Your task to perform on an android device: set an alarm Image 0: 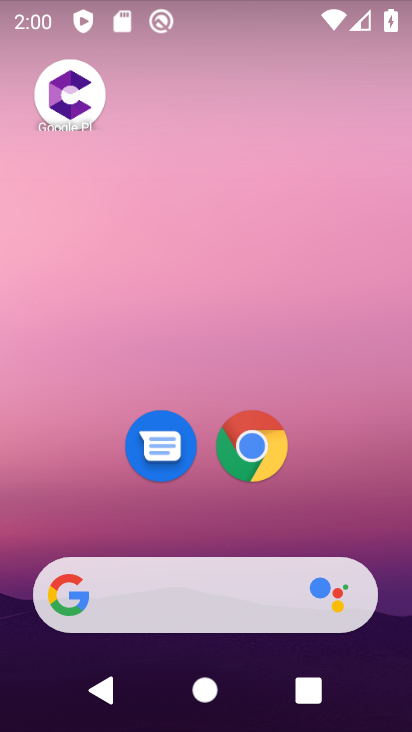
Step 0: drag from (378, 509) to (320, 1)
Your task to perform on an android device: set an alarm Image 1: 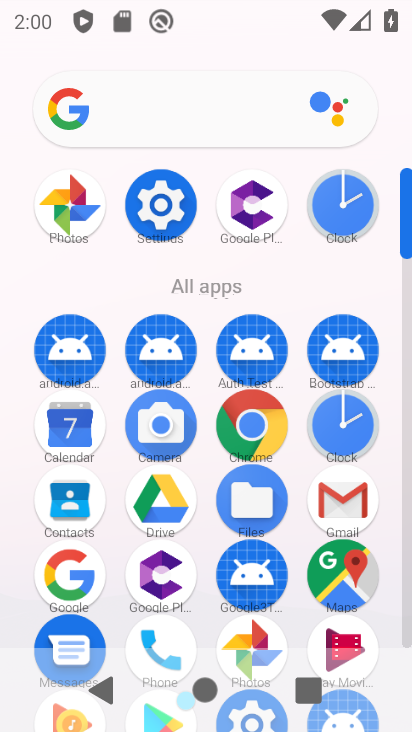
Step 1: click (342, 421)
Your task to perform on an android device: set an alarm Image 2: 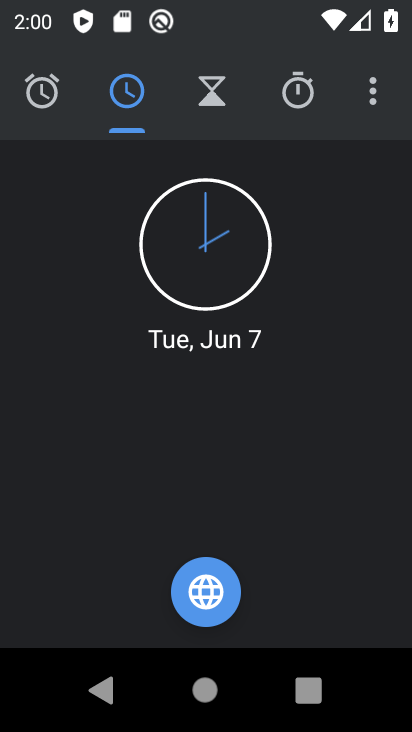
Step 2: click (46, 90)
Your task to perform on an android device: set an alarm Image 3: 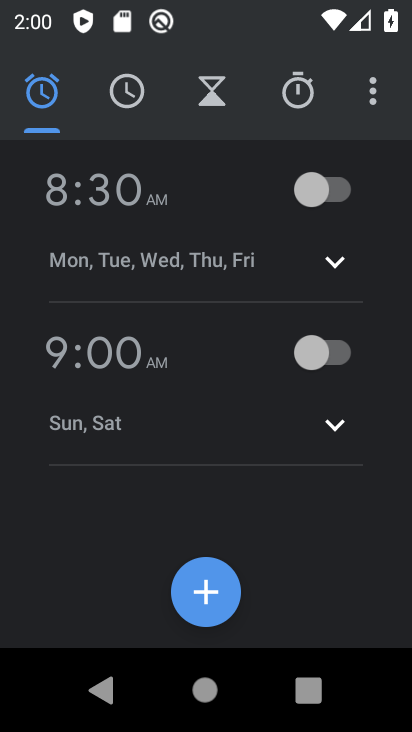
Step 3: click (87, 191)
Your task to perform on an android device: set an alarm Image 4: 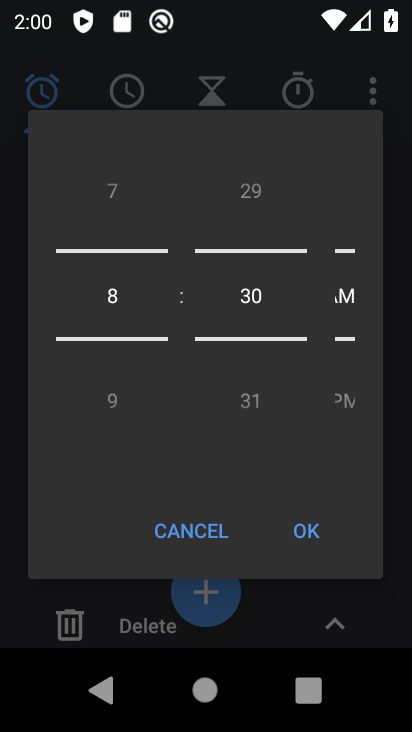
Step 4: drag from (123, 212) to (111, 399)
Your task to perform on an android device: set an alarm Image 5: 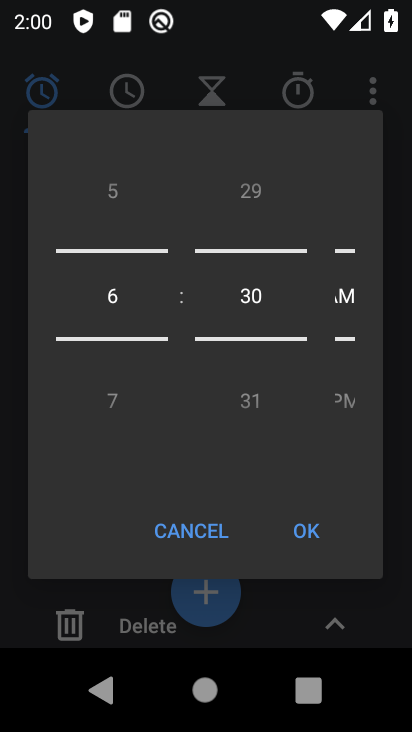
Step 5: click (306, 528)
Your task to perform on an android device: set an alarm Image 6: 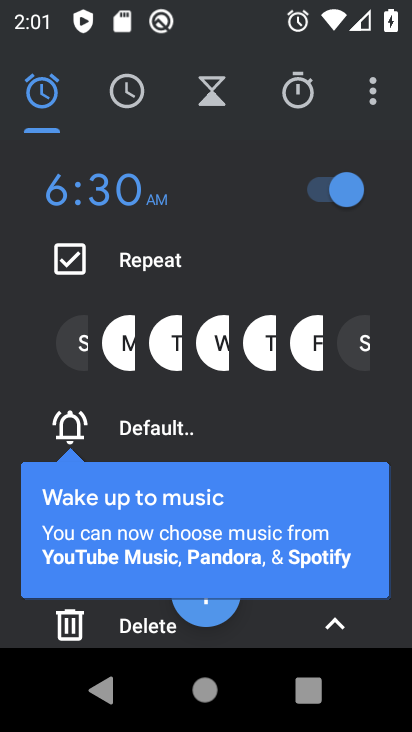
Step 6: click (361, 334)
Your task to perform on an android device: set an alarm Image 7: 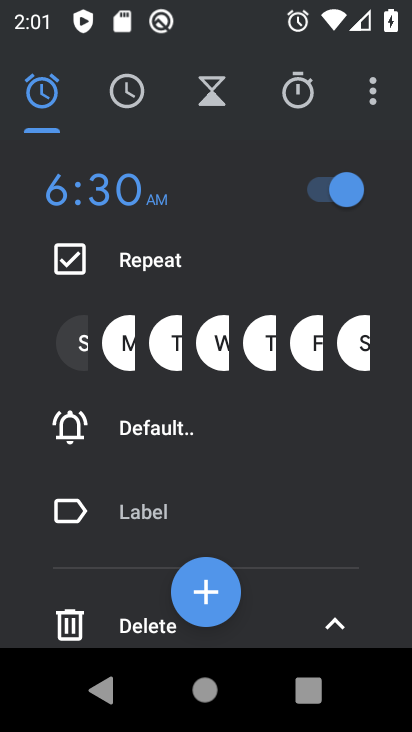
Step 7: click (336, 625)
Your task to perform on an android device: set an alarm Image 8: 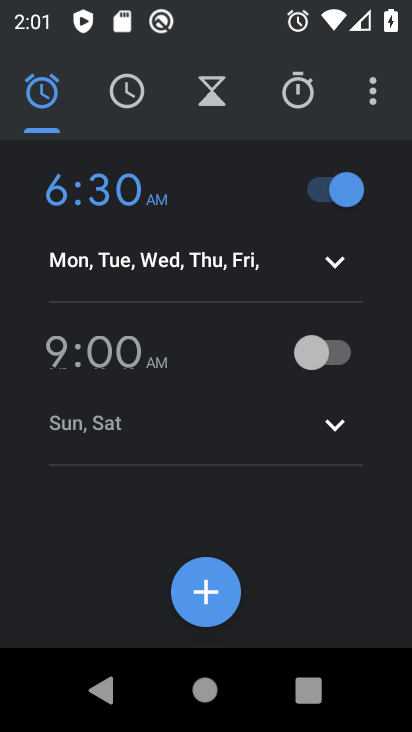
Step 8: task complete